Your task to perform on an android device: toggle improve location accuracy Image 0: 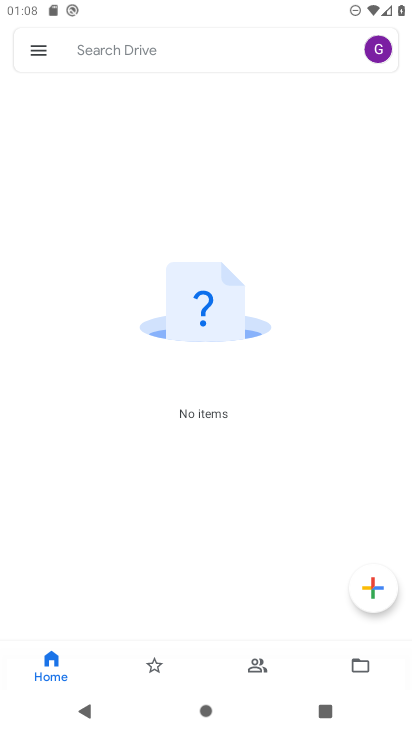
Step 0: press home button
Your task to perform on an android device: toggle improve location accuracy Image 1: 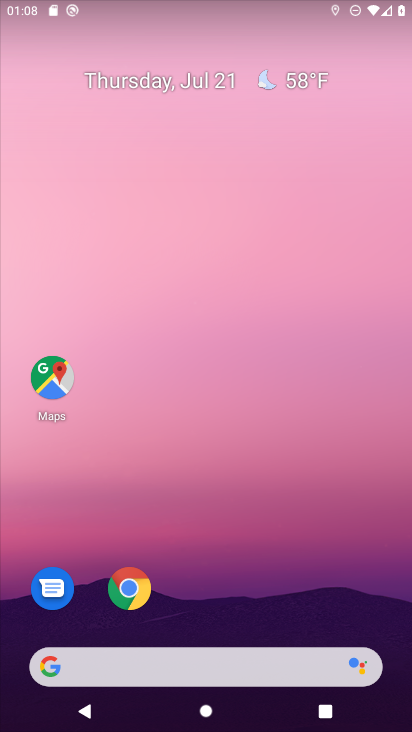
Step 1: drag from (246, 611) to (389, 10)
Your task to perform on an android device: toggle improve location accuracy Image 2: 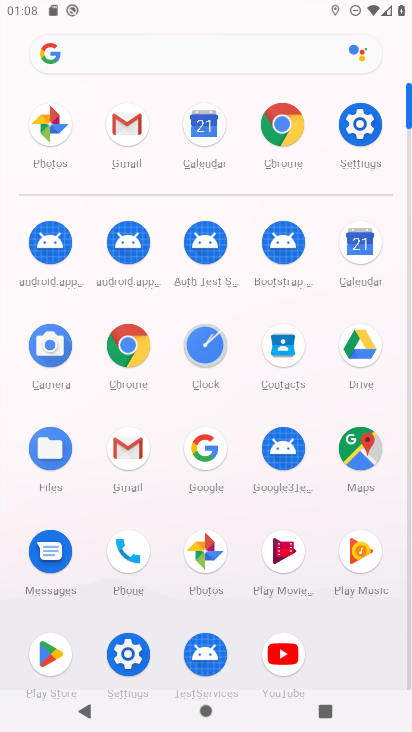
Step 2: click (125, 654)
Your task to perform on an android device: toggle improve location accuracy Image 3: 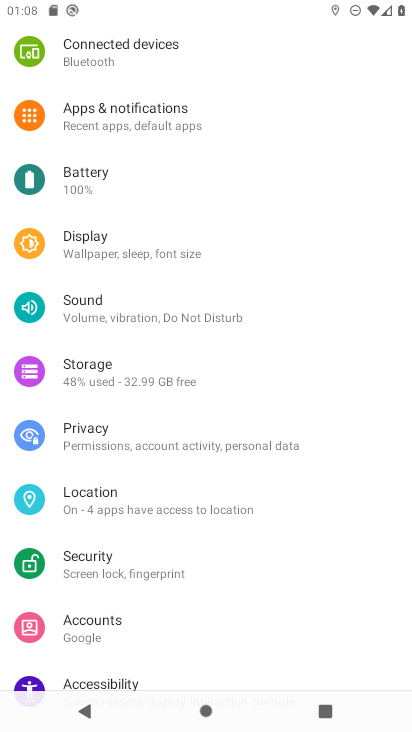
Step 3: click (112, 506)
Your task to perform on an android device: toggle improve location accuracy Image 4: 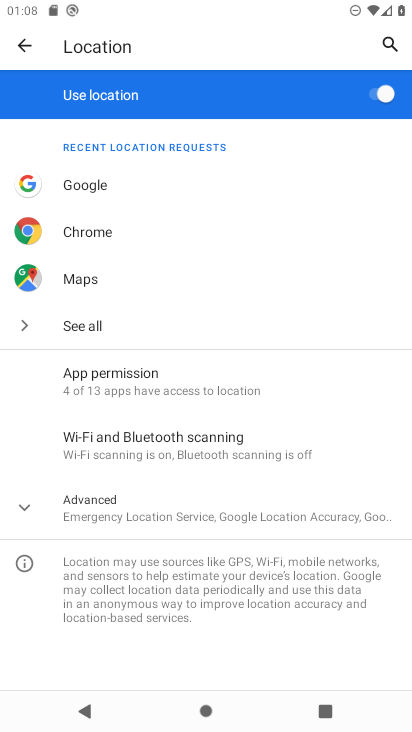
Step 4: click (131, 503)
Your task to perform on an android device: toggle improve location accuracy Image 5: 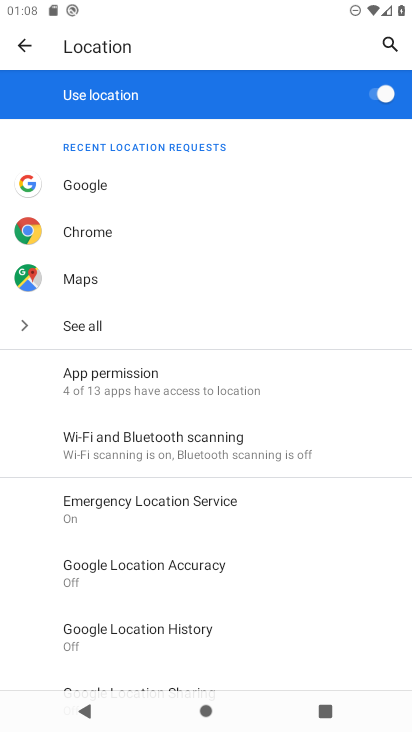
Step 5: click (165, 566)
Your task to perform on an android device: toggle improve location accuracy Image 6: 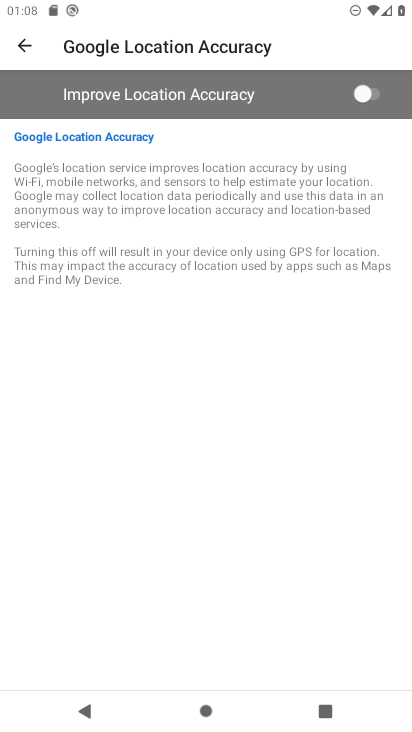
Step 6: click (400, 89)
Your task to perform on an android device: toggle improve location accuracy Image 7: 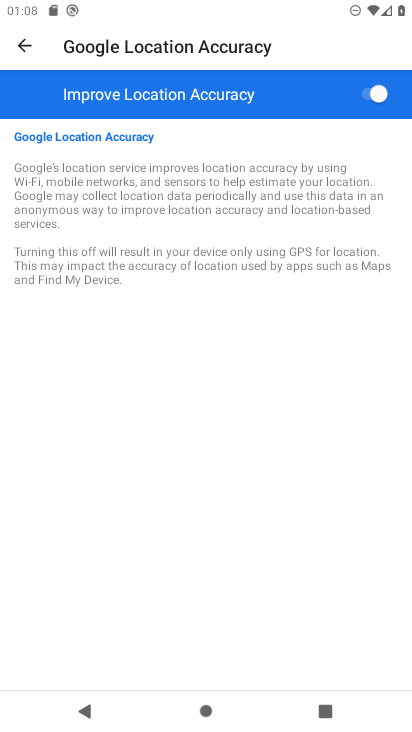
Step 7: task complete